Your task to perform on an android device: turn on wifi Image 0: 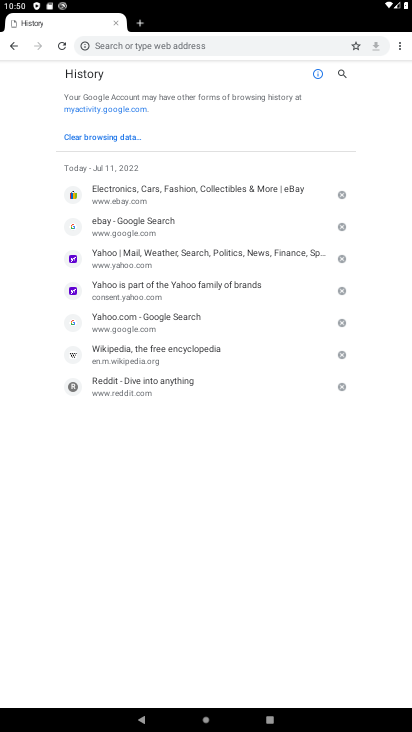
Step 0: press home button
Your task to perform on an android device: turn on wifi Image 1: 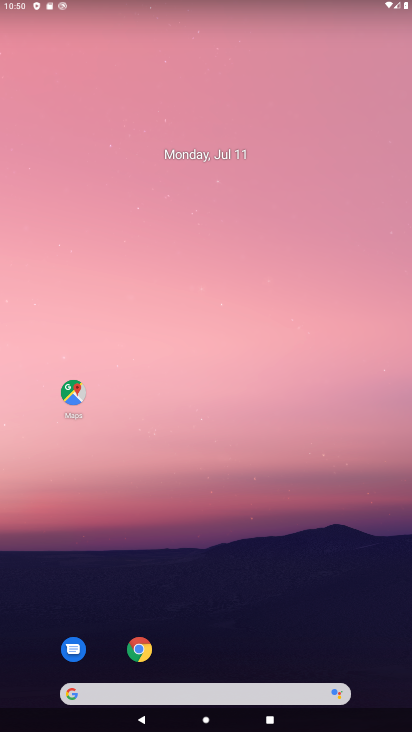
Step 1: drag from (164, 695) to (182, 88)
Your task to perform on an android device: turn on wifi Image 2: 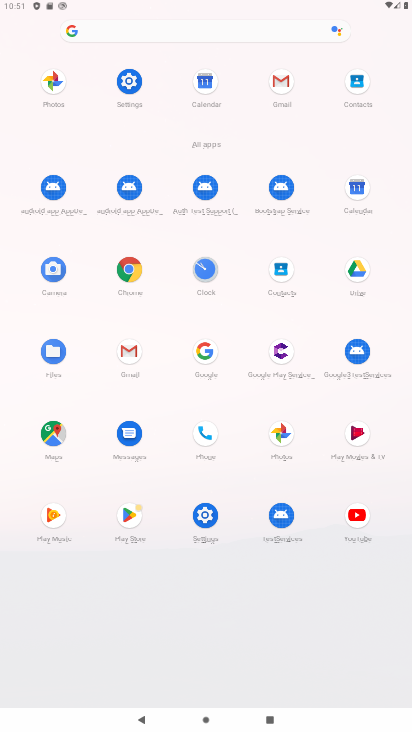
Step 2: click (128, 77)
Your task to perform on an android device: turn on wifi Image 3: 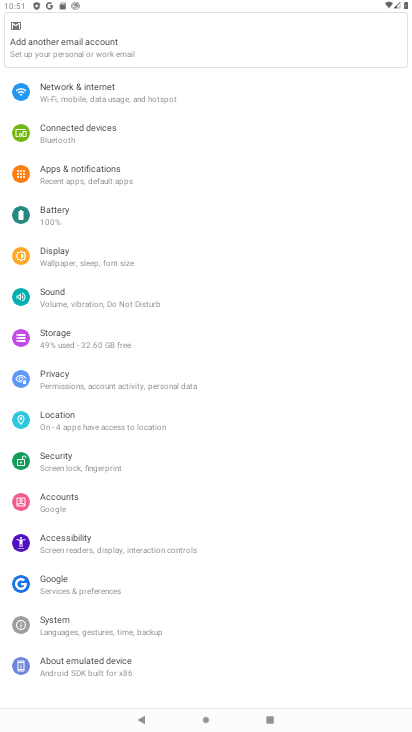
Step 3: click (118, 86)
Your task to perform on an android device: turn on wifi Image 4: 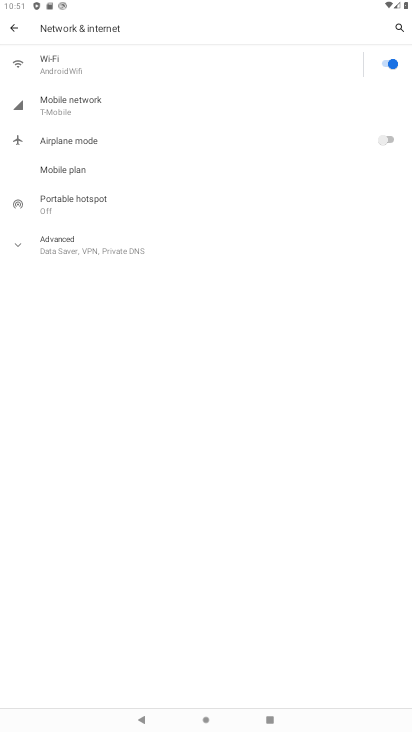
Step 4: task complete